Your task to perform on an android device: Open internet settings Image 0: 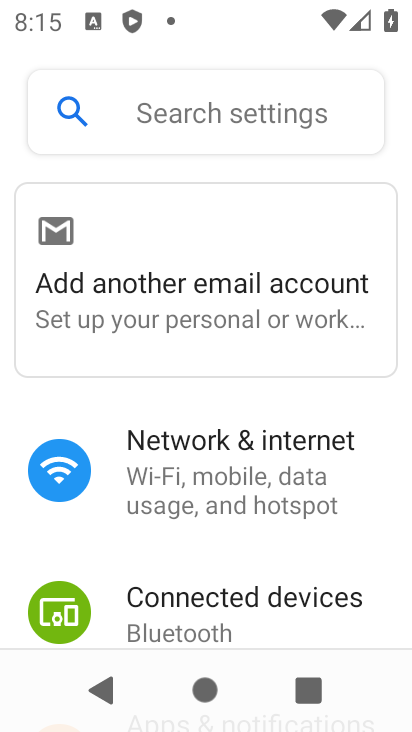
Step 0: press home button
Your task to perform on an android device: Open internet settings Image 1: 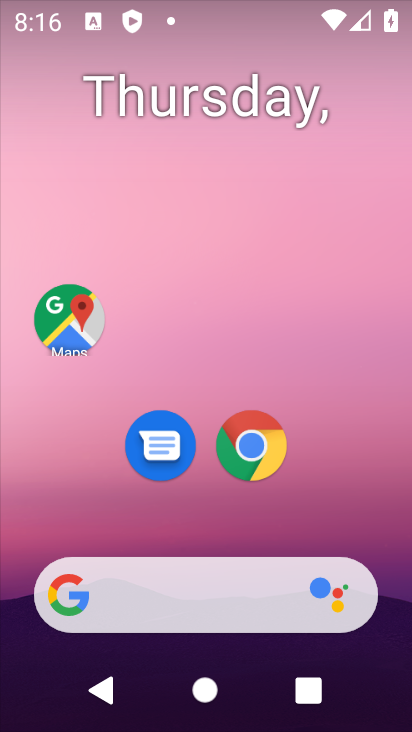
Step 1: drag from (19, 615) to (256, 144)
Your task to perform on an android device: Open internet settings Image 2: 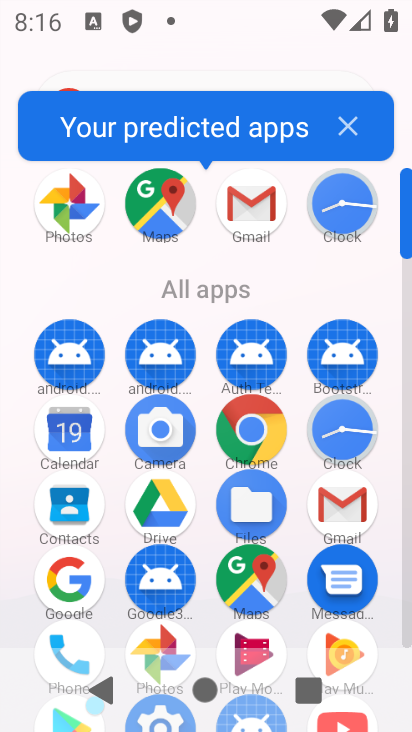
Step 2: drag from (18, 547) to (197, 262)
Your task to perform on an android device: Open internet settings Image 3: 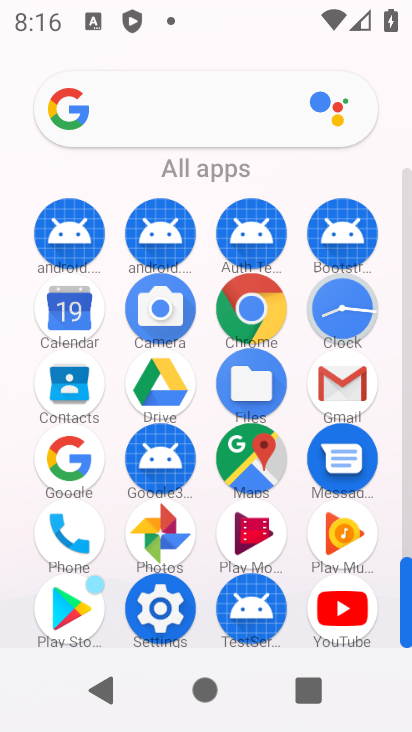
Step 3: click (155, 611)
Your task to perform on an android device: Open internet settings Image 4: 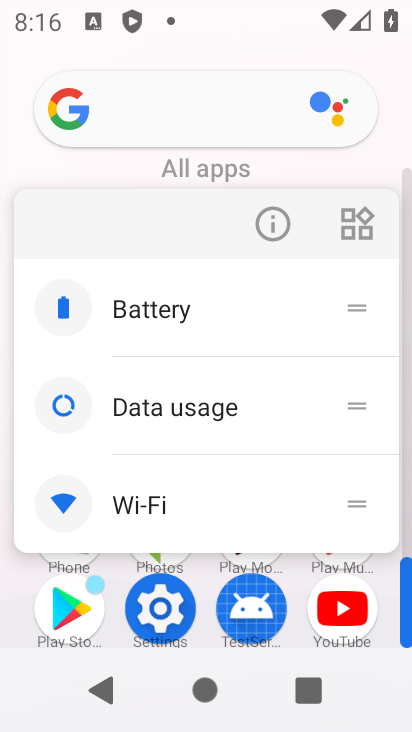
Step 4: click (161, 602)
Your task to perform on an android device: Open internet settings Image 5: 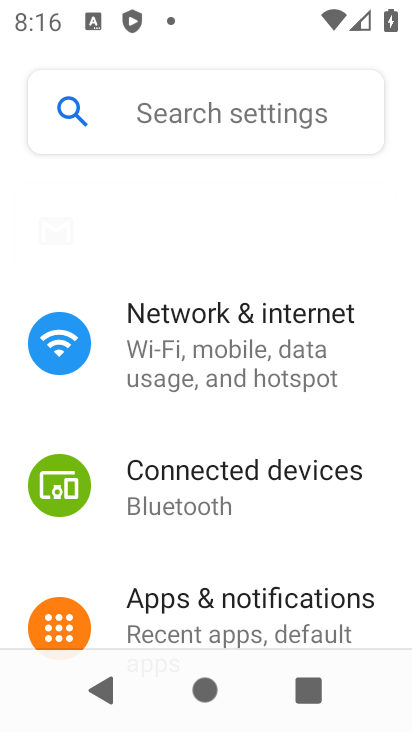
Step 5: click (212, 277)
Your task to perform on an android device: Open internet settings Image 6: 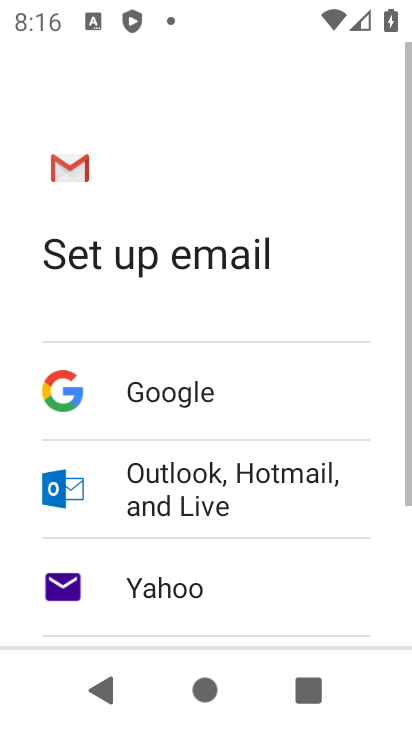
Step 6: press home button
Your task to perform on an android device: Open internet settings Image 7: 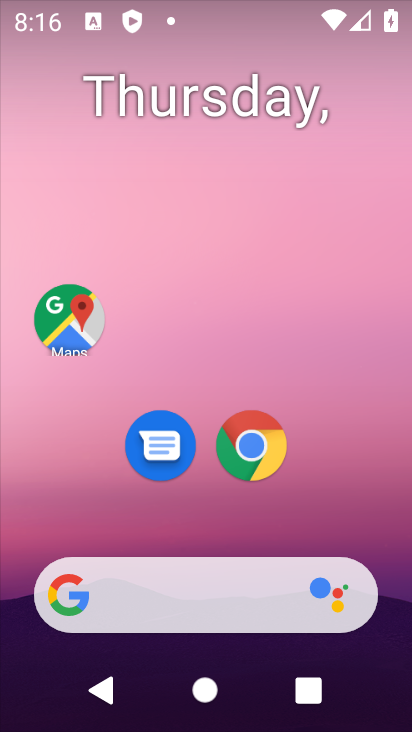
Step 7: drag from (40, 659) to (293, 189)
Your task to perform on an android device: Open internet settings Image 8: 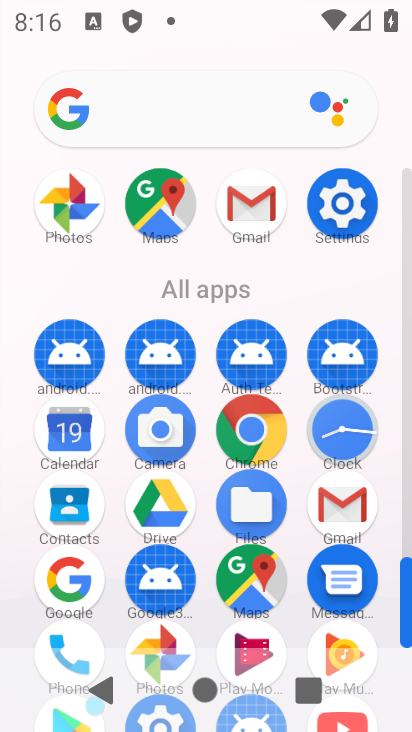
Step 8: click (336, 206)
Your task to perform on an android device: Open internet settings Image 9: 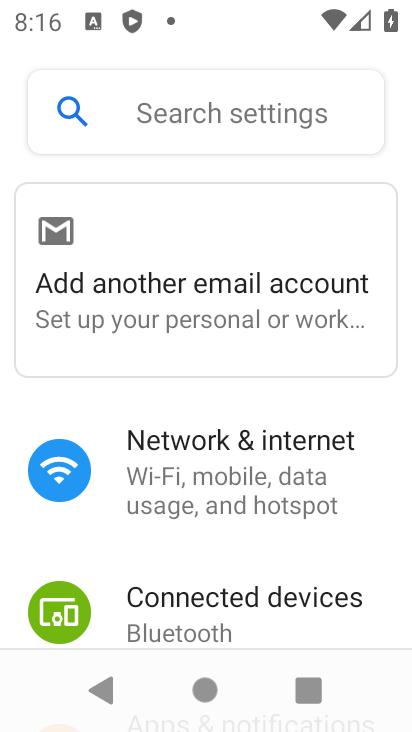
Step 9: click (198, 464)
Your task to perform on an android device: Open internet settings Image 10: 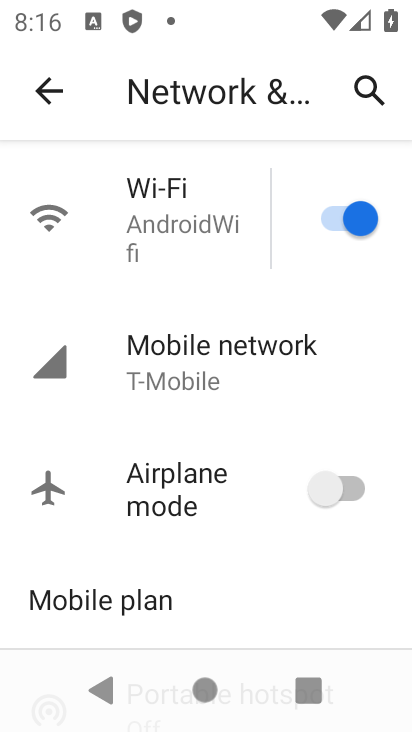
Step 10: click (230, 373)
Your task to perform on an android device: Open internet settings Image 11: 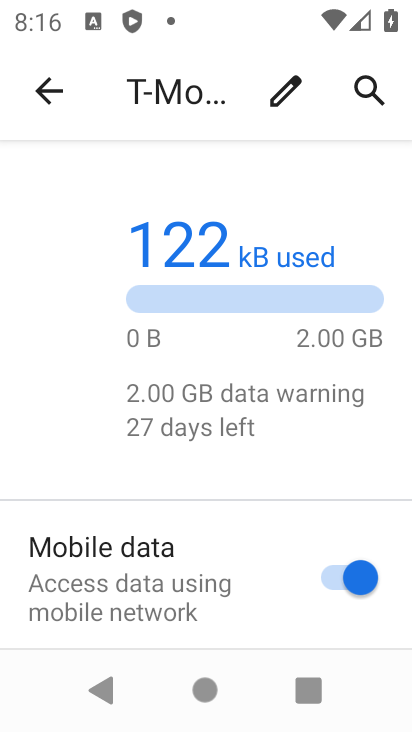
Step 11: task complete